Your task to perform on an android device: check out phone information Image 0: 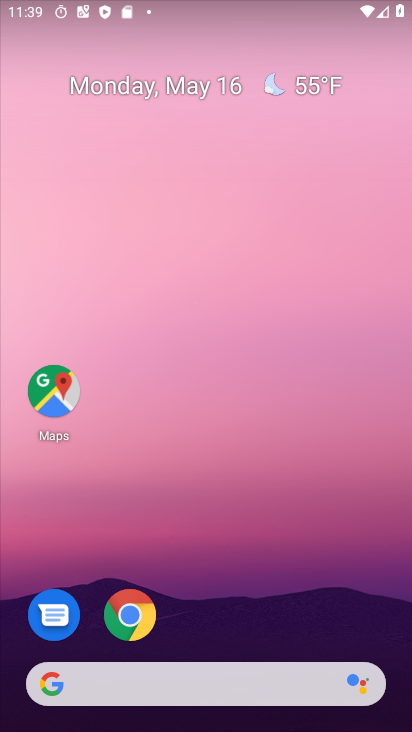
Step 0: drag from (258, 583) to (293, 60)
Your task to perform on an android device: check out phone information Image 1: 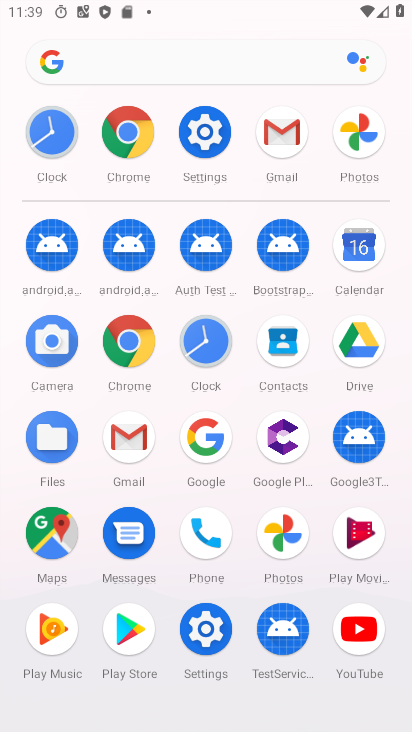
Step 1: click (201, 540)
Your task to perform on an android device: check out phone information Image 2: 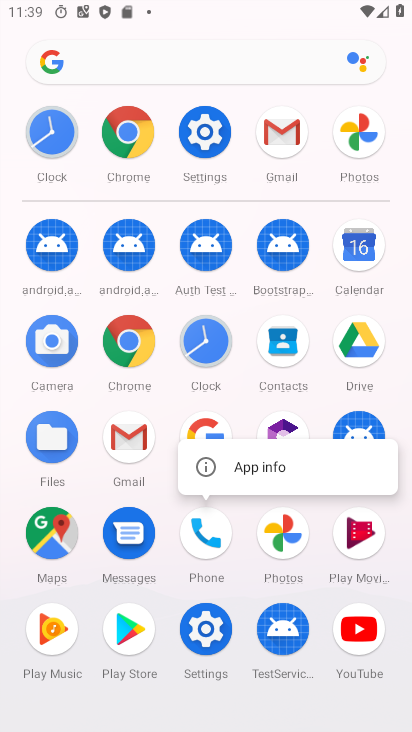
Step 2: click (256, 464)
Your task to perform on an android device: check out phone information Image 3: 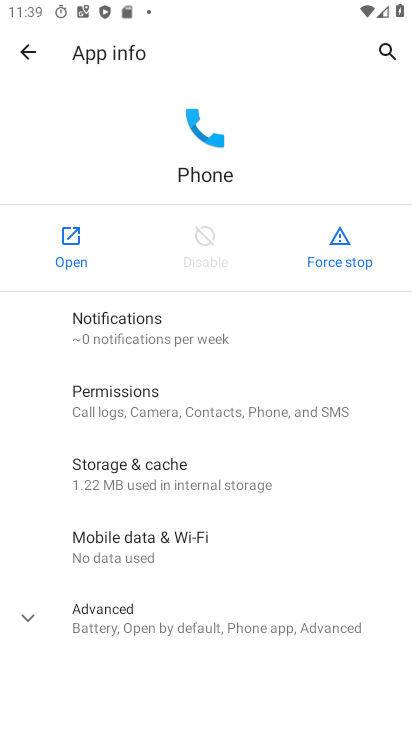
Step 3: task complete